Your task to perform on an android device: What's the weather? Image 0: 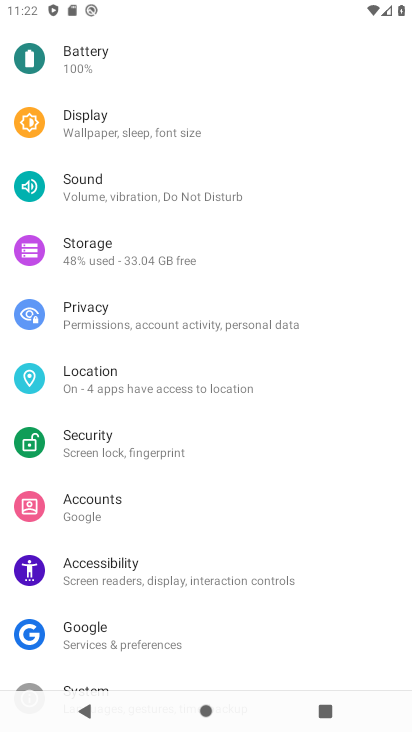
Step 0: press home button
Your task to perform on an android device: What's the weather? Image 1: 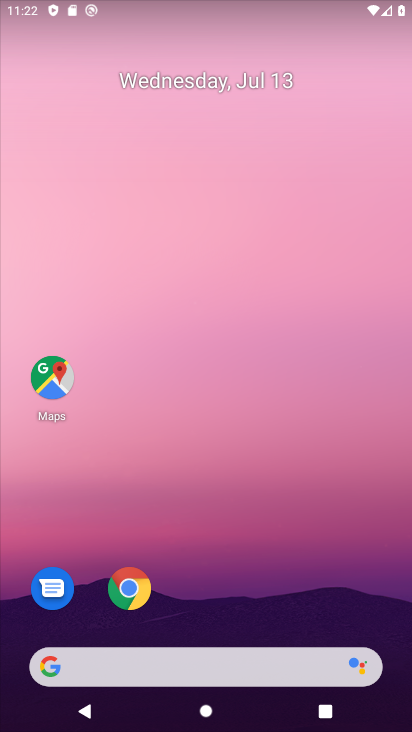
Step 1: drag from (250, 640) to (208, 147)
Your task to perform on an android device: What's the weather? Image 2: 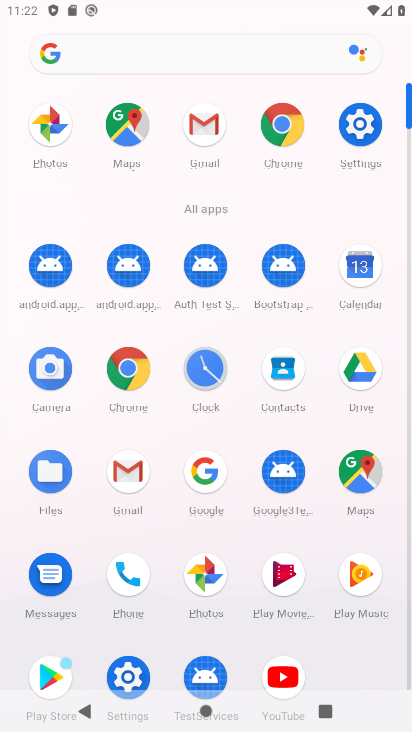
Step 2: click (201, 474)
Your task to perform on an android device: What's the weather? Image 3: 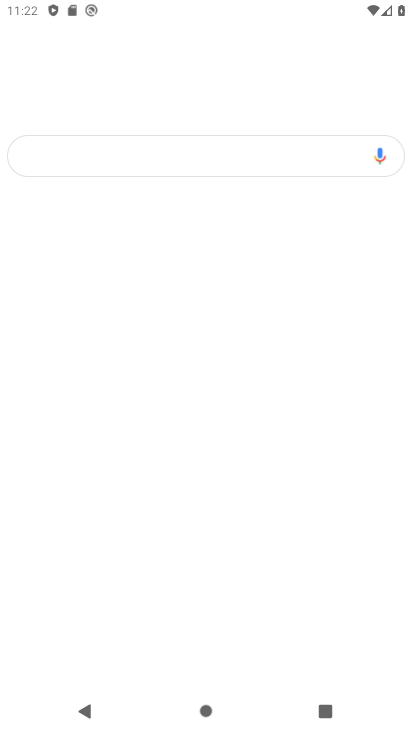
Step 3: click (201, 474)
Your task to perform on an android device: What's the weather? Image 4: 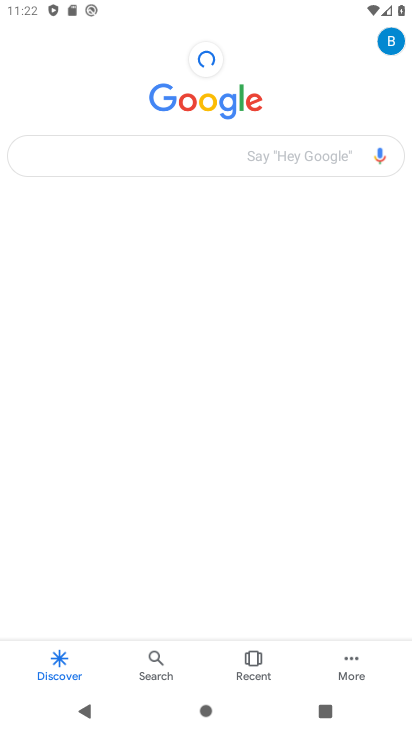
Step 4: click (76, 148)
Your task to perform on an android device: What's the weather? Image 5: 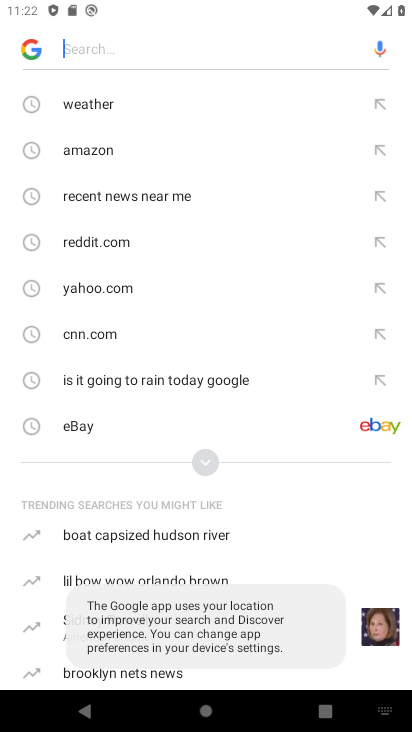
Step 5: click (96, 110)
Your task to perform on an android device: What's the weather? Image 6: 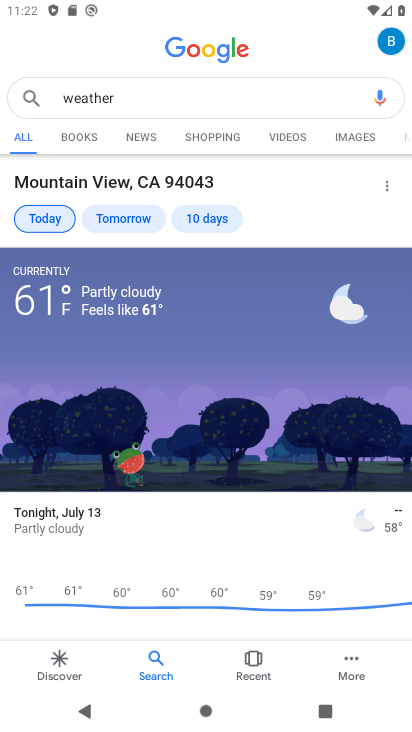
Step 6: task complete